Your task to perform on an android device: Open maps Image 0: 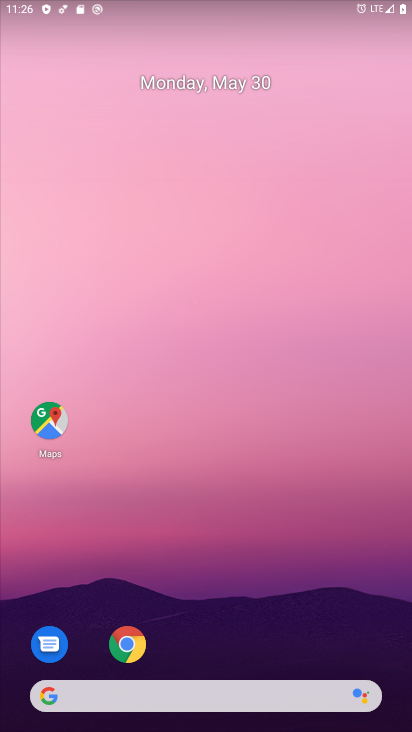
Step 0: drag from (258, 604) to (200, 101)
Your task to perform on an android device: Open maps Image 1: 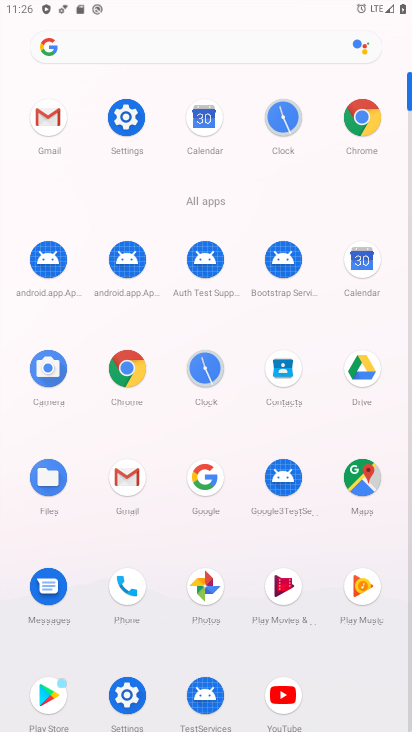
Step 1: click (366, 486)
Your task to perform on an android device: Open maps Image 2: 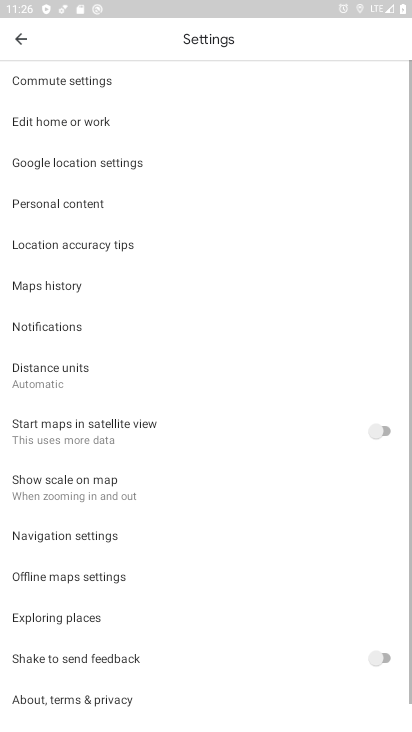
Step 2: task complete